Your task to perform on an android device: Open Youtube and go to the subscriptions tab Image 0: 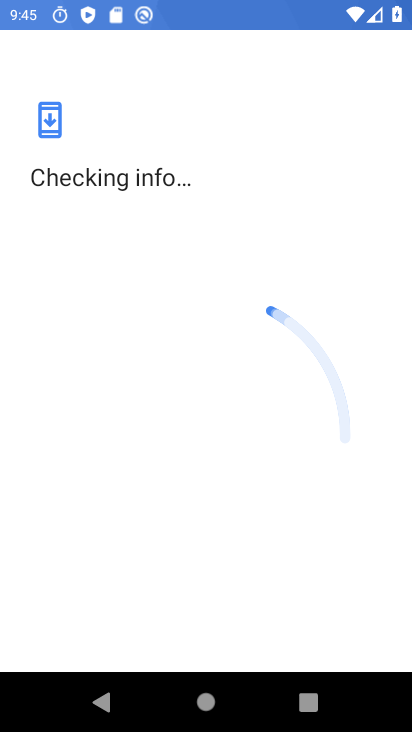
Step 0: press home button
Your task to perform on an android device: Open Youtube and go to the subscriptions tab Image 1: 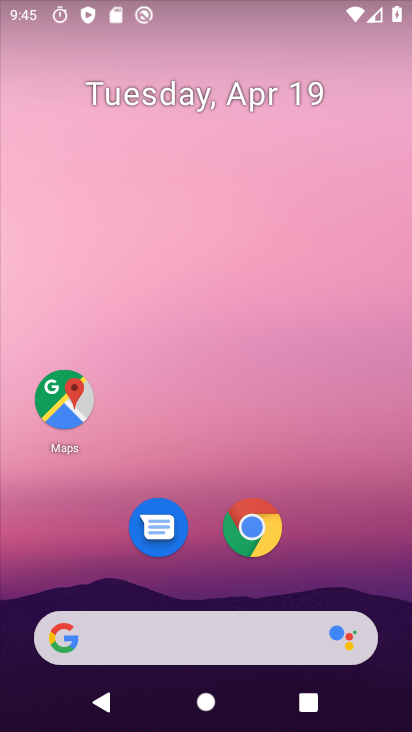
Step 1: drag from (258, 654) to (300, 146)
Your task to perform on an android device: Open Youtube and go to the subscriptions tab Image 2: 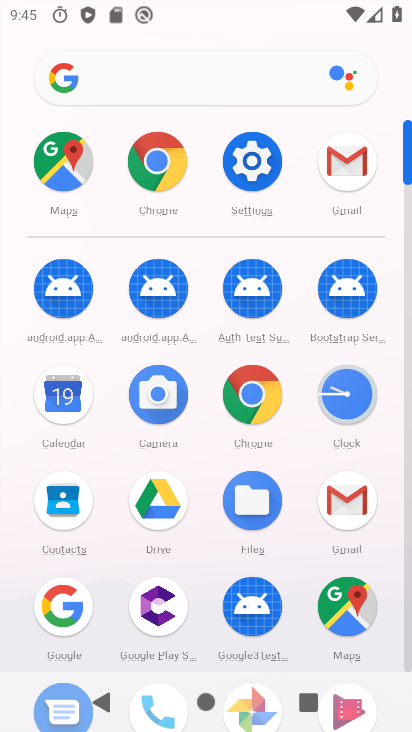
Step 2: drag from (207, 528) to (230, 401)
Your task to perform on an android device: Open Youtube and go to the subscriptions tab Image 3: 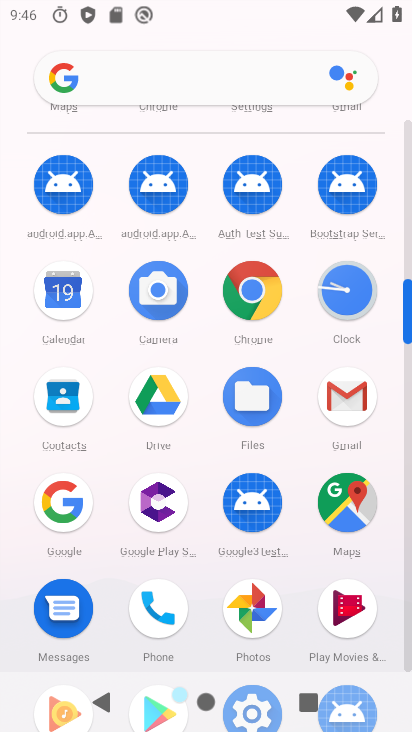
Step 3: drag from (300, 571) to (344, 347)
Your task to perform on an android device: Open Youtube and go to the subscriptions tab Image 4: 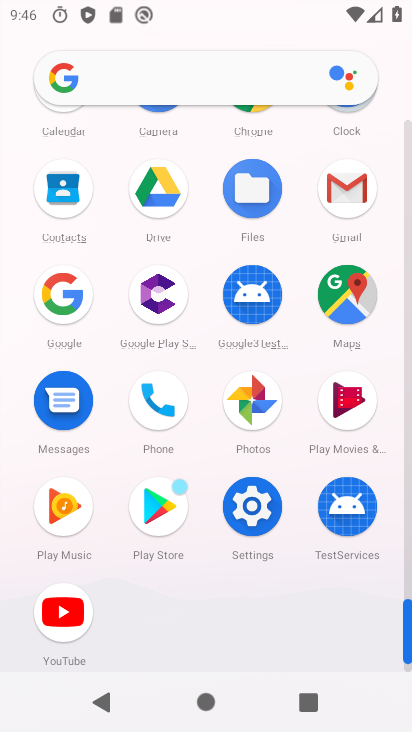
Step 4: click (62, 621)
Your task to perform on an android device: Open Youtube and go to the subscriptions tab Image 5: 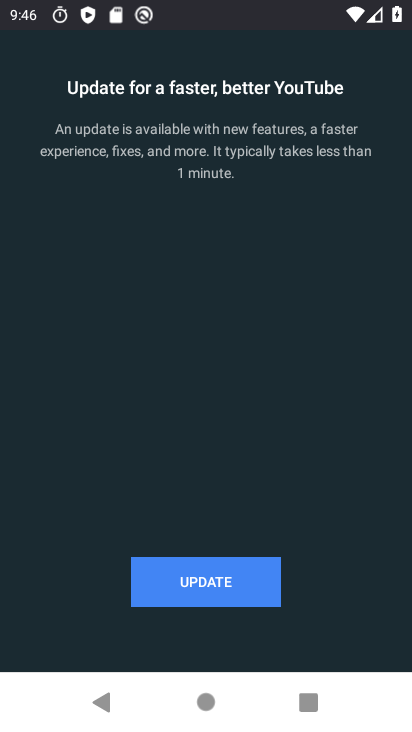
Step 5: click (210, 572)
Your task to perform on an android device: Open Youtube and go to the subscriptions tab Image 6: 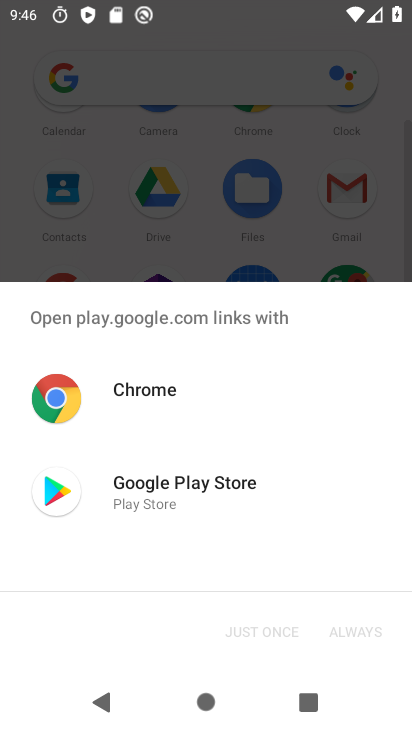
Step 6: click (186, 510)
Your task to perform on an android device: Open Youtube and go to the subscriptions tab Image 7: 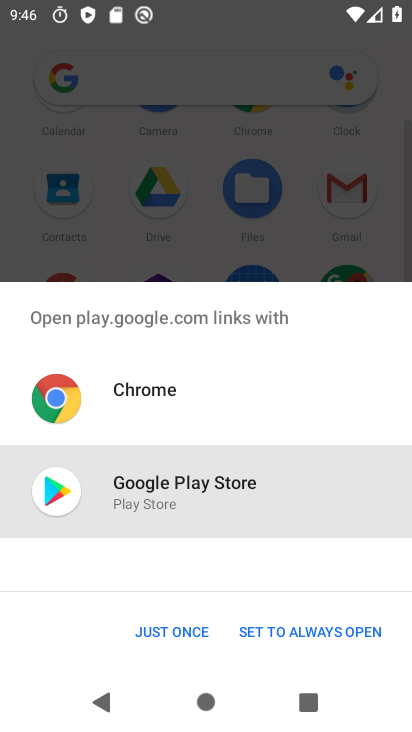
Step 7: click (187, 633)
Your task to perform on an android device: Open Youtube and go to the subscriptions tab Image 8: 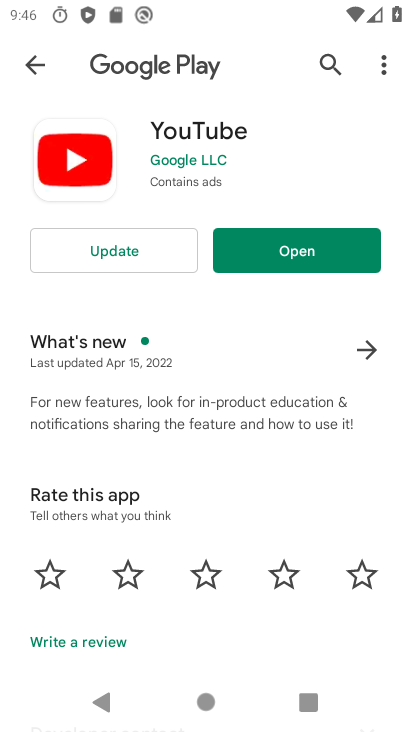
Step 8: click (113, 247)
Your task to perform on an android device: Open Youtube and go to the subscriptions tab Image 9: 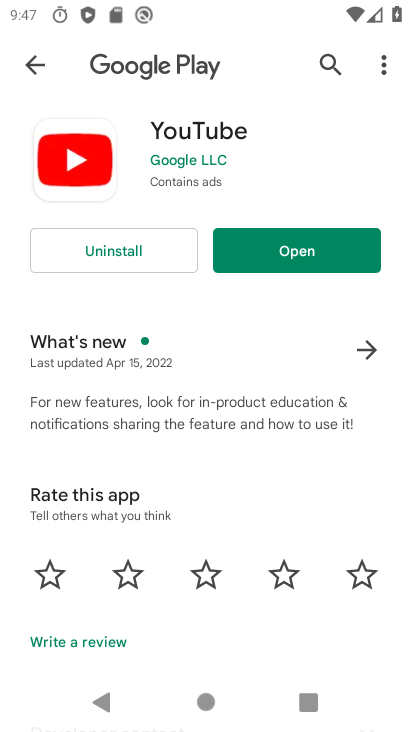
Step 9: click (279, 257)
Your task to perform on an android device: Open Youtube and go to the subscriptions tab Image 10: 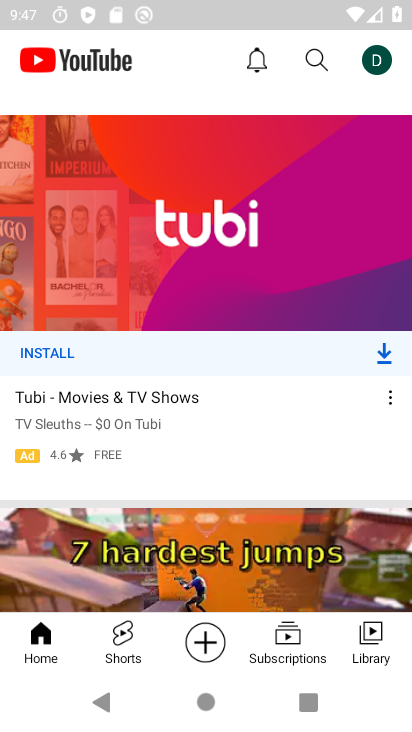
Step 10: click (285, 648)
Your task to perform on an android device: Open Youtube and go to the subscriptions tab Image 11: 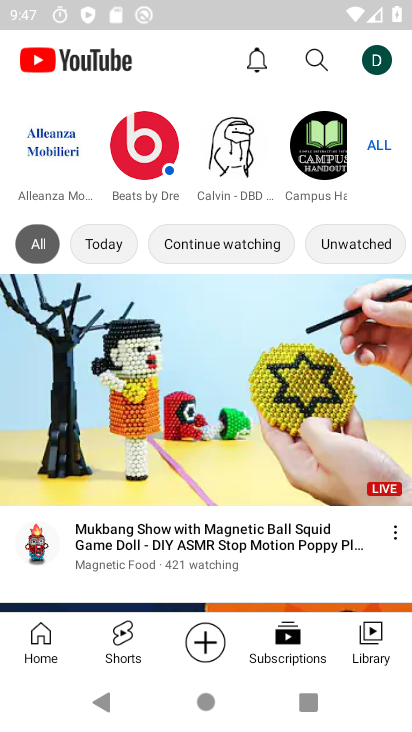
Step 11: task complete